Your task to perform on an android device: turn on priority inbox in the gmail app Image 0: 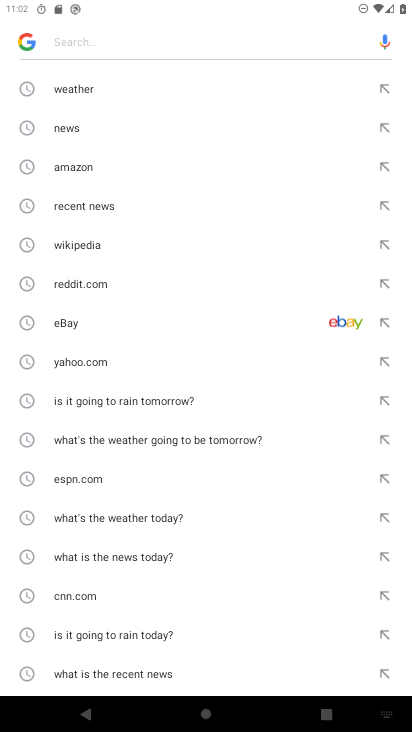
Step 0: press back button
Your task to perform on an android device: turn on priority inbox in the gmail app Image 1: 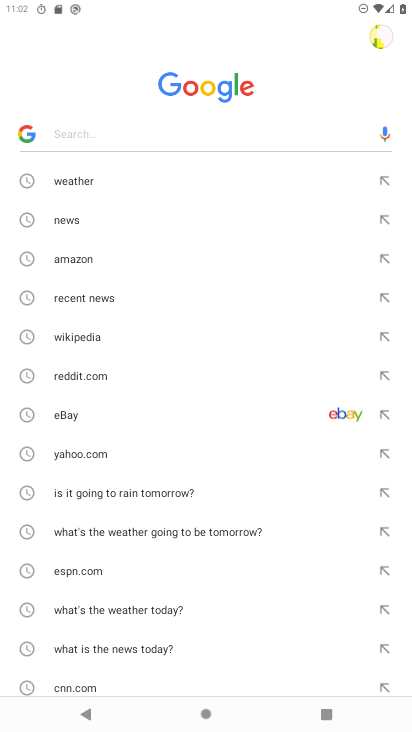
Step 1: press back button
Your task to perform on an android device: turn on priority inbox in the gmail app Image 2: 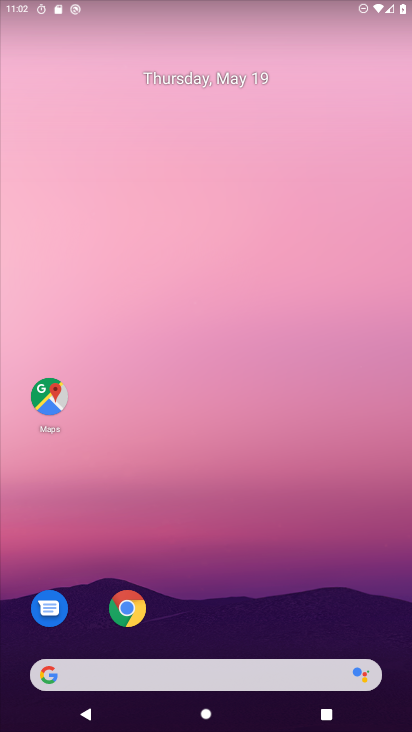
Step 2: drag from (396, 667) to (379, 253)
Your task to perform on an android device: turn on priority inbox in the gmail app Image 3: 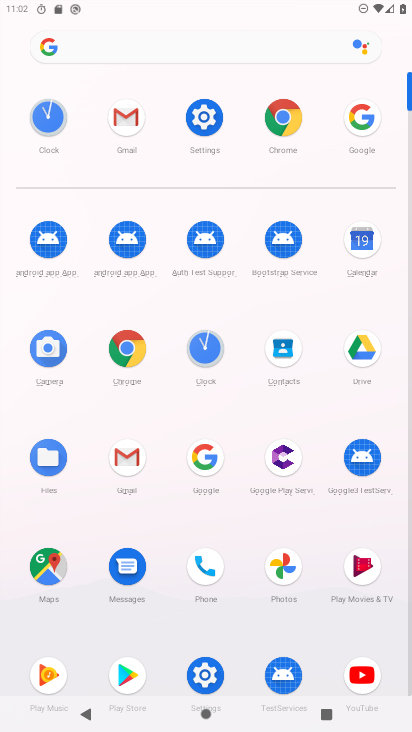
Step 3: click (128, 457)
Your task to perform on an android device: turn on priority inbox in the gmail app Image 4: 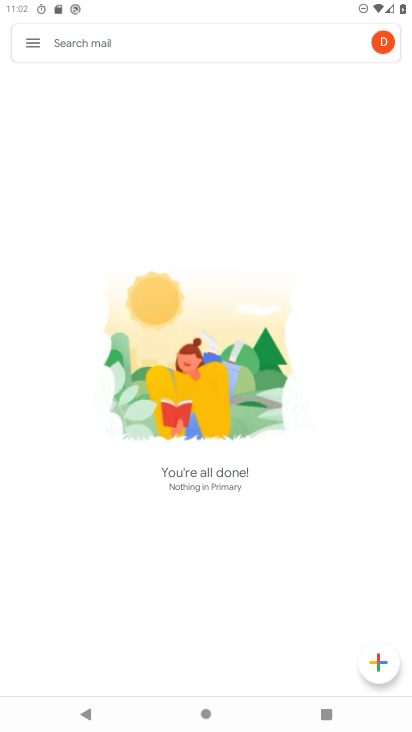
Step 4: click (31, 40)
Your task to perform on an android device: turn on priority inbox in the gmail app Image 5: 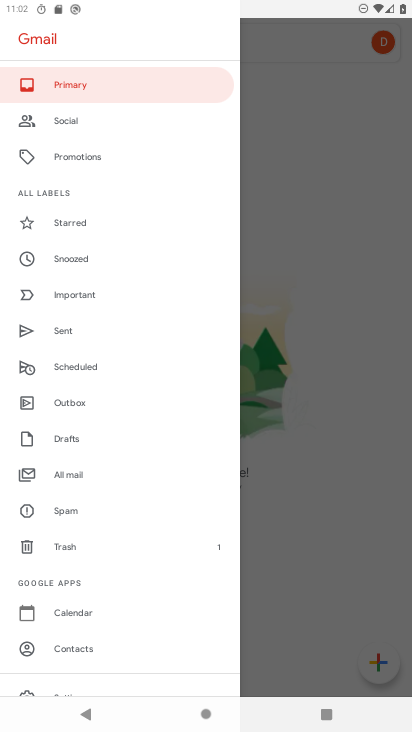
Step 5: drag from (198, 648) to (215, 414)
Your task to perform on an android device: turn on priority inbox in the gmail app Image 6: 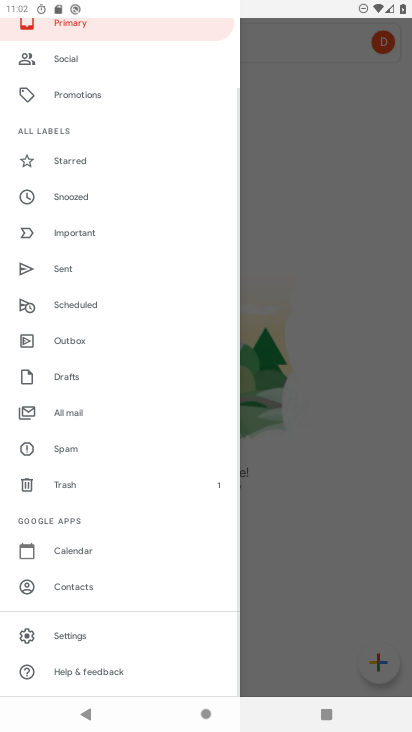
Step 6: click (81, 637)
Your task to perform on an android device: turn on priority inbox in the gmail app Image 7: 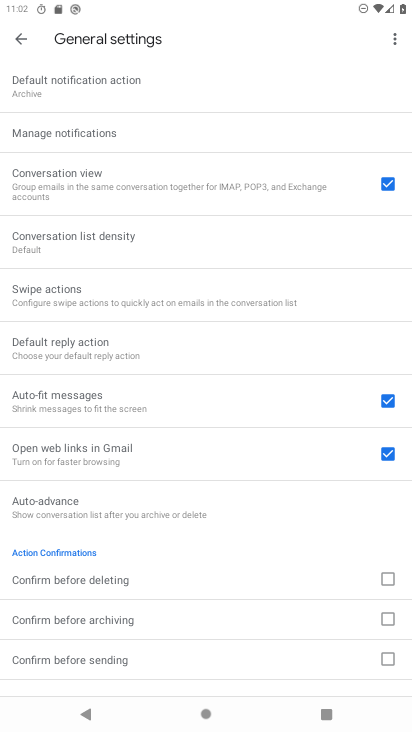
Step 7: click (17, 40)
Your task to perform on an android device: turn on priority inbox in the gmail app Image 8: 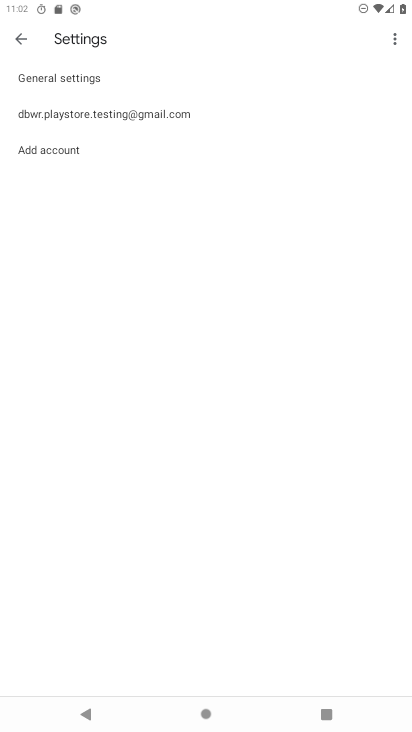
Step 8: click (48, 116)
Your task to perform on an android device: turn on priority inbox in the gmail app Image 9: 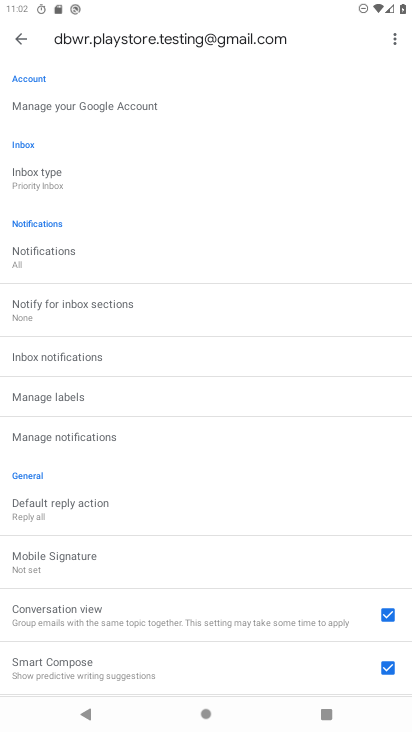
Step 9: click (27, 178)
Your task to perform on an android device: turn on priority inbox in the gmail app Image 10: 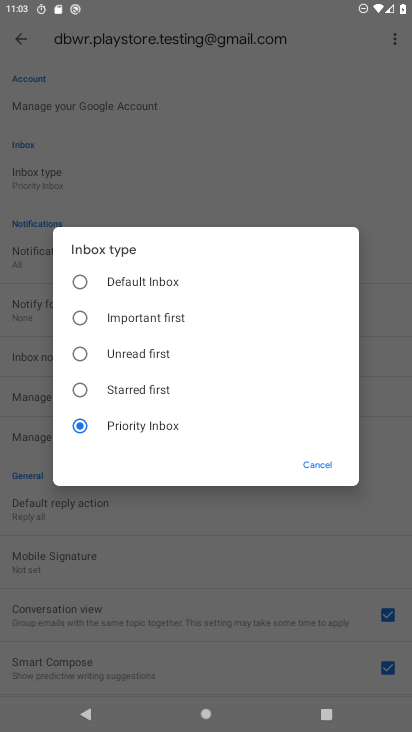
Step 10: task complete